Your task to perform on an android device: change the clock display to digital Image 0: 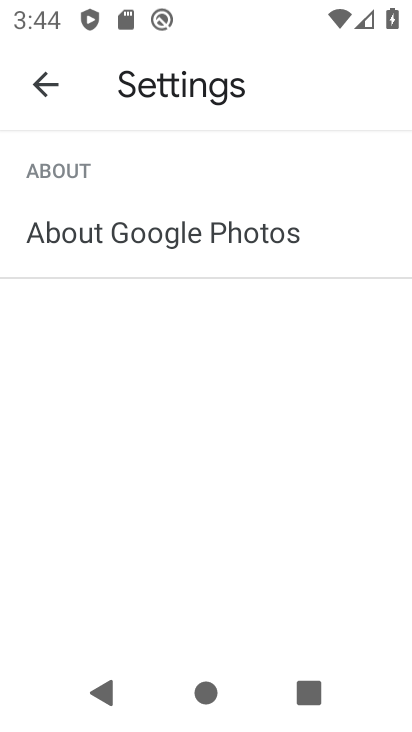
Step 0: press home button
Your task to perform on an android device: change the clock display to digital Image 1: 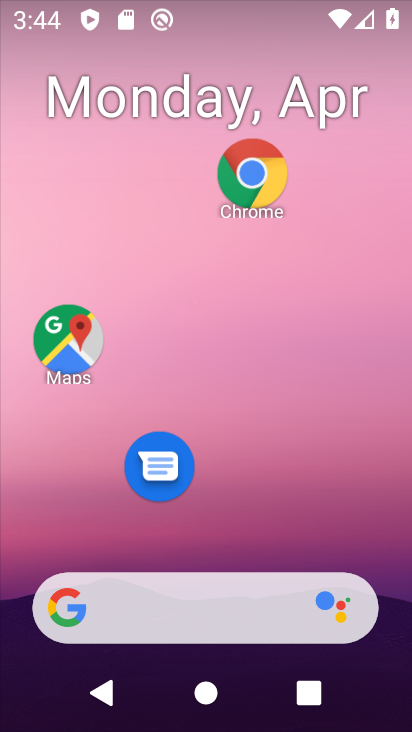
Step 1: drag from (243, 535) to (165, 161)
Your task to perform on an android device: change the clock display to digital Image 2: 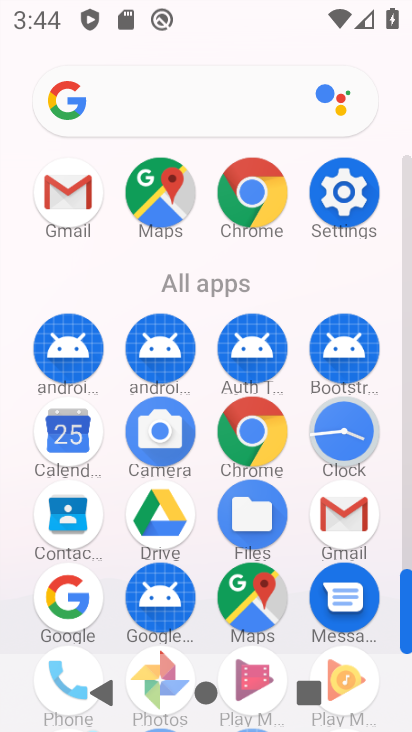
Step 2: click (359, 433)
Your task to perform on an android device: change the clock display to digital Image 3: 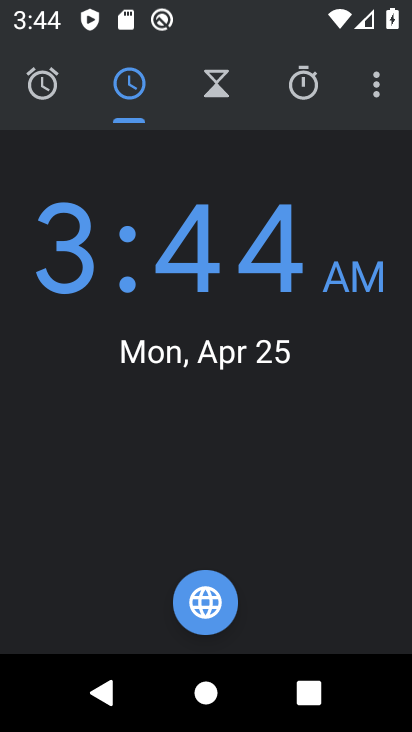
Step 3: click (374, 97)
Your task to perform on an android device: change the clock display to digital Image 4: 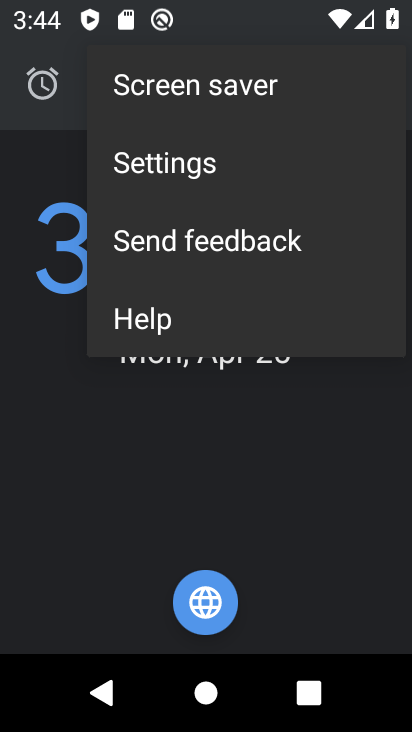
Step 4: click (296, 171)
Your task to perform on an android device: change the clock display to digital Image 5: 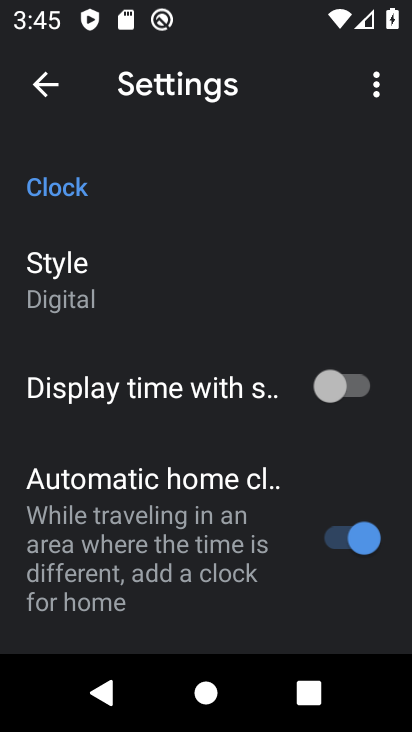
Step 5: task complete